Your task to perform on an android device: find photos in the google photos app Image 0: 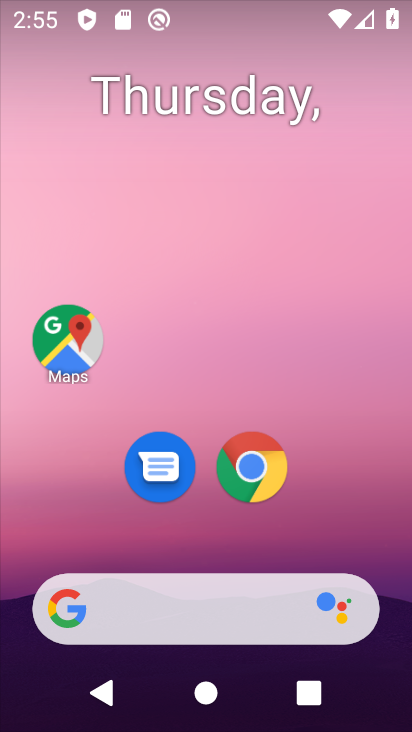
Step 0: drag from (209, 579) to (242, 220)
Your task to perform on an android device: find photos in the google photos app Image 1: 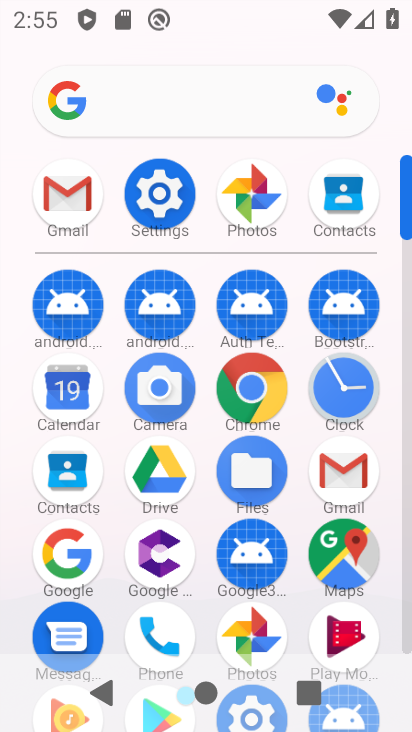
Step 1: click (249, 216)
Your task to perform on an android device: find photos in the google photos app Image 2: 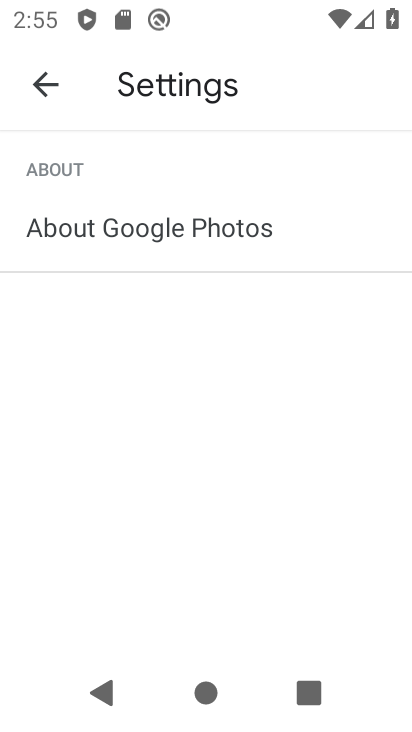
Step 2: click (52, 79)
Your task to perform on an android device: find photos in the google photos app Image 3: 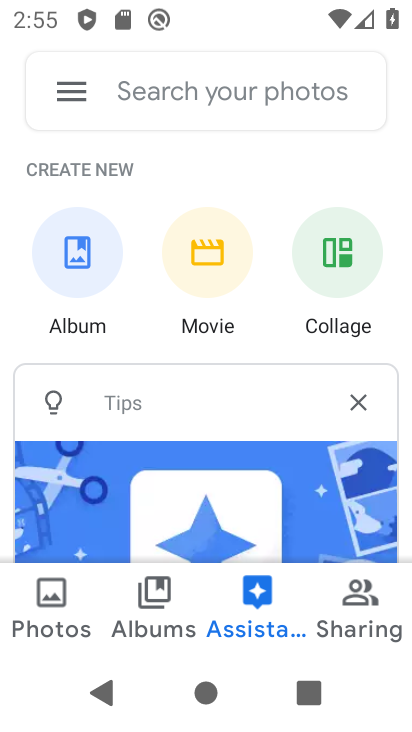
Step 3: click (65, 591)
Your task to perform on an android device: find photos in the google photos app Image 4: 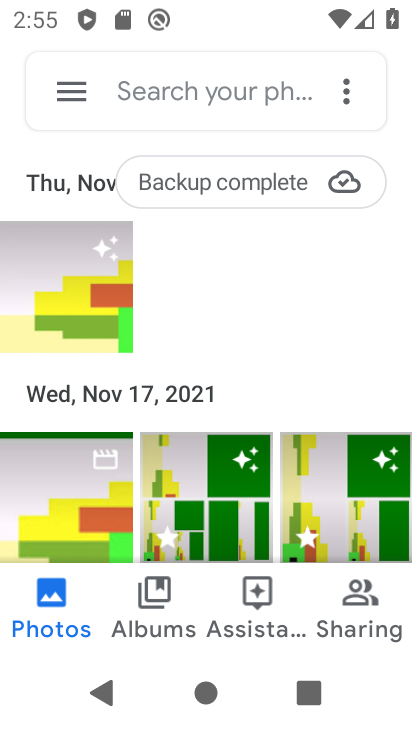
Step 4: task complete